Your task to perform on an android device: manage bookmarks in the chrome app Image 0: 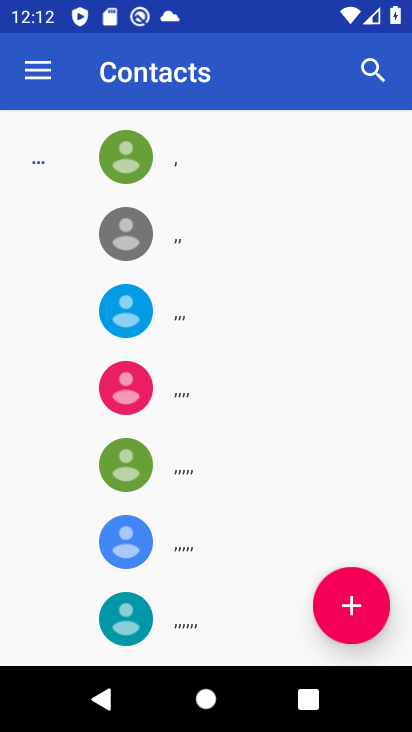
Step 0: press home button
Your task to perform on an android device: manage bookmarks in the chrome app Image 1: 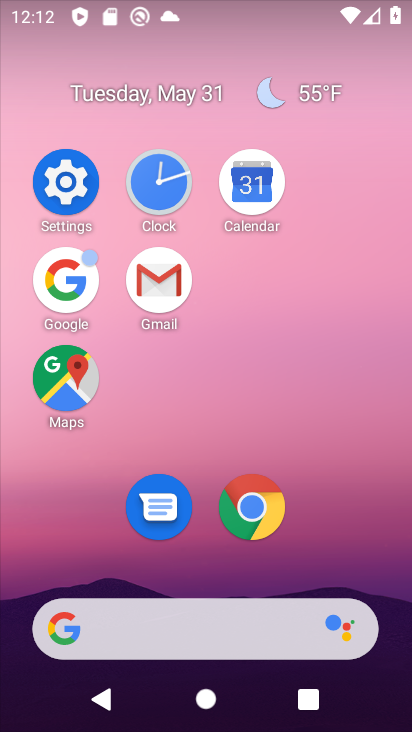
Step 1: click (238, 507)
Your task to perform on an android device: manage bookmarks in the chrome app Image 2: 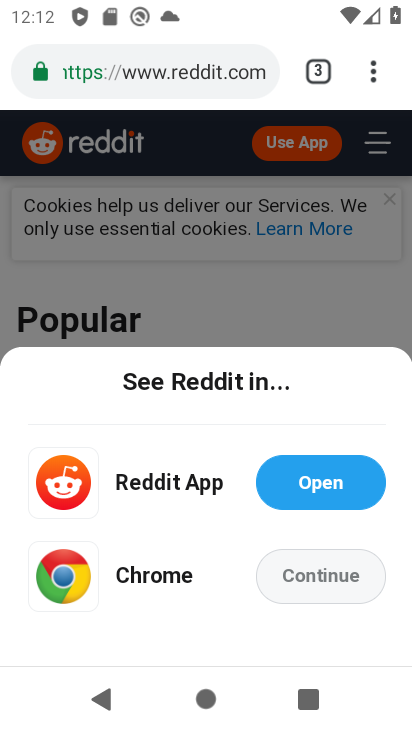
Step 2: click (372, 64)
Your task to perform on an android device: manage bookmarks in the chrome app Image 3: 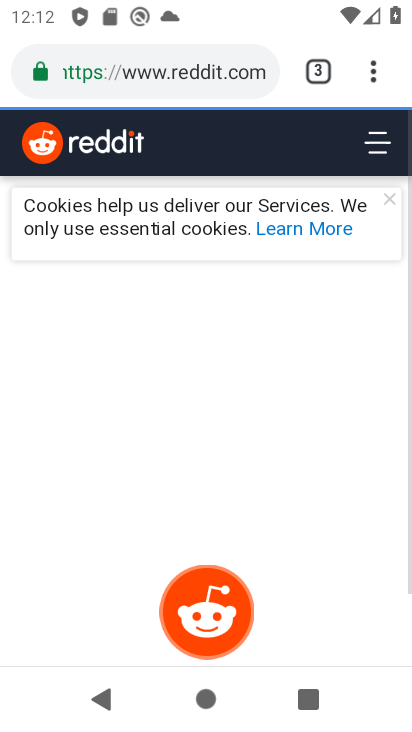
Step 3: click (387, 70)
Your task to perform on an android device: manage bookmarks in the chrome app Image 4: 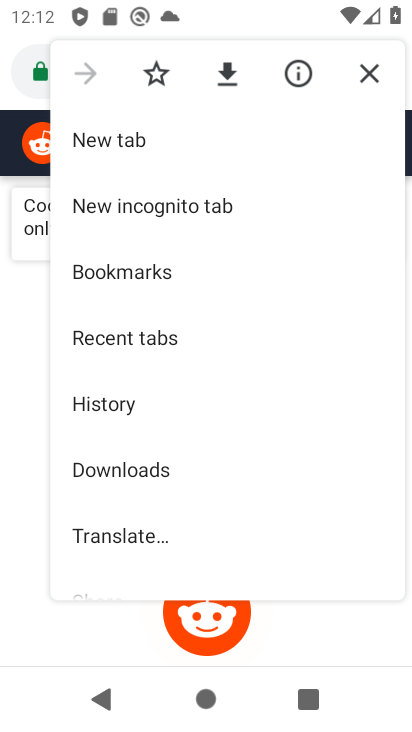
Step 4: click (197, 276)
Your task to perform on an android device: manage bookmarks in the chrome app Image 5: 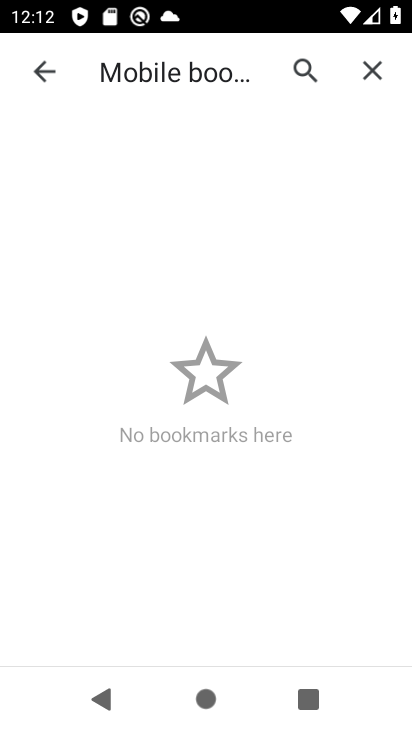
Step 5: task complete